Your task to perform on an android device: open app "DoorDash - Food Delivery" (install if not already installed), go to login, and select forgot password Image 0: 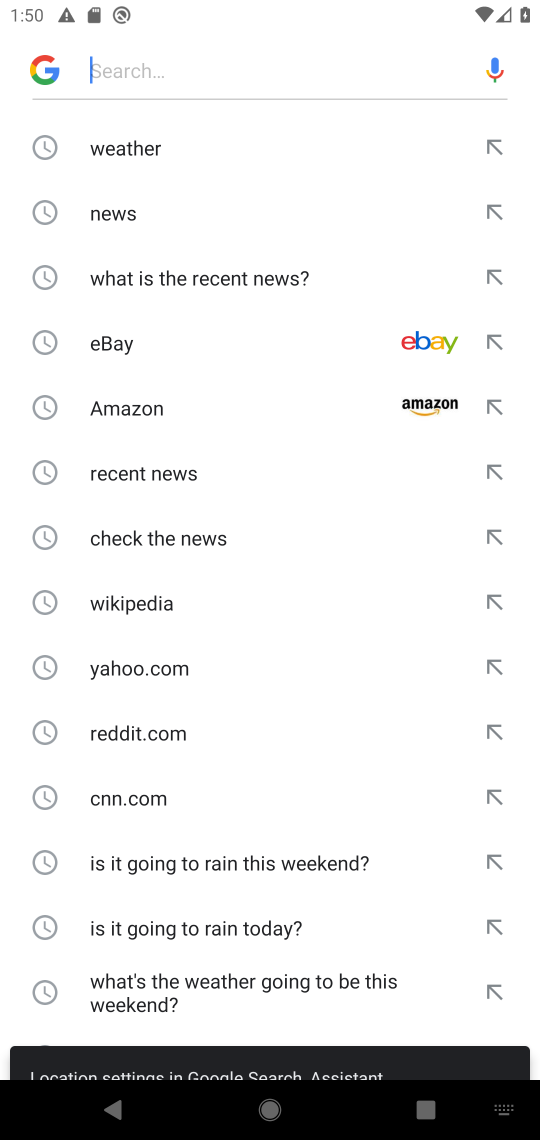
Step 0: press home button
Your task to perform on an android device: open app "DoorDash - Food Delivery" (install if not already installed), go to login, and select forgot password Image 1: 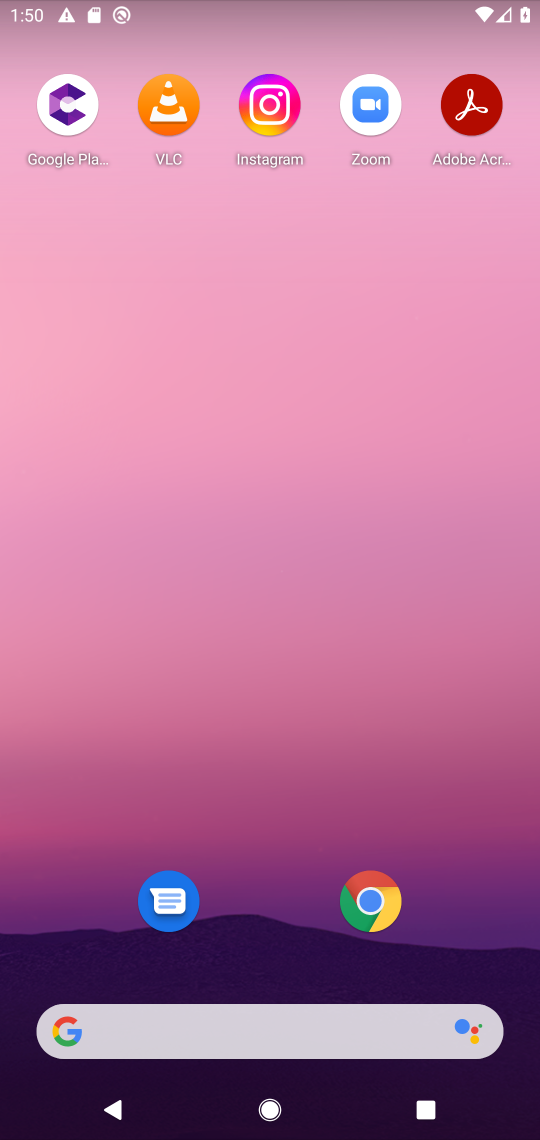
Step 1: drag from (495, 983) to (467, 116)
Your task to perform on an android device: open app "DoorDash - Food Delivery" (install if not already installed), go to login, and select forgot password Image 2: 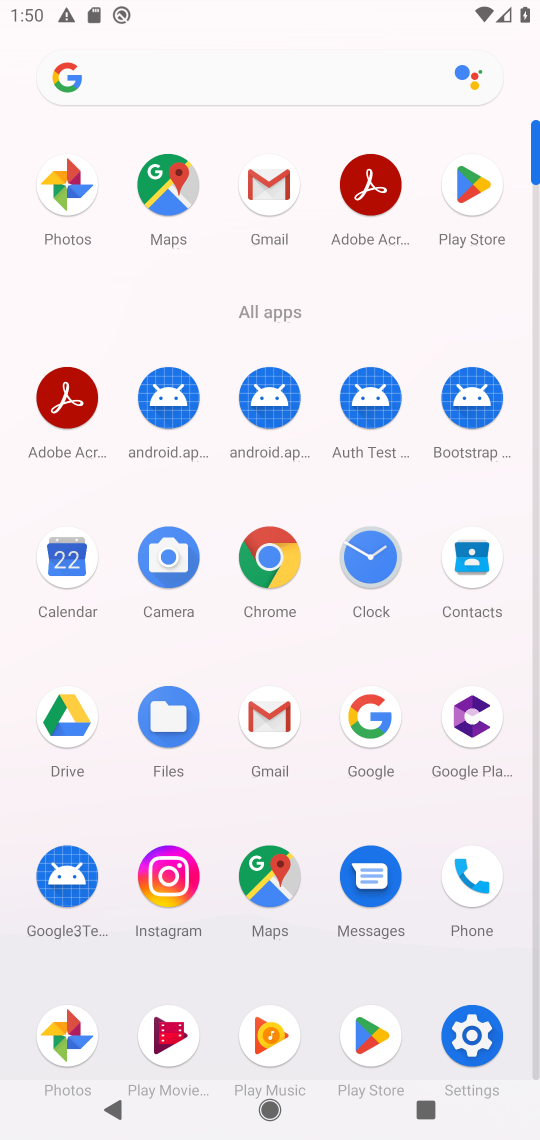
Step 2: drag from (217, 965) to (208, 524)
Your task to perform on an android device: open app "DoorDash - Food Delivery" (install if not already installed), go to login, and select forgot password Image 3: 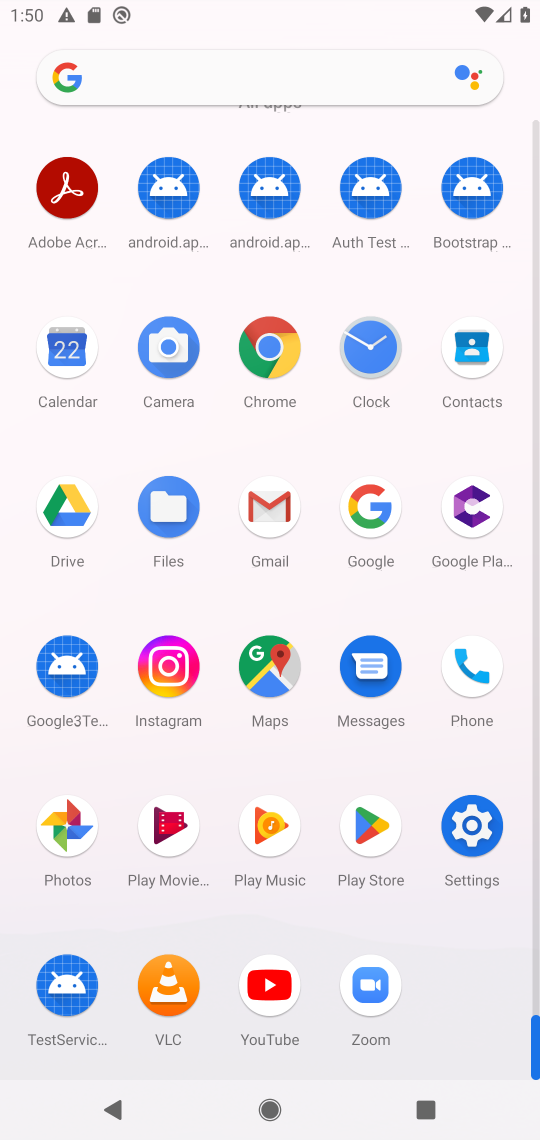
Step 3: click (368, 823)
Your task to perform on an android device: open app "DoorDash - Food Delivery" (install if not already installed), go to login, and select forgot password Image 4: 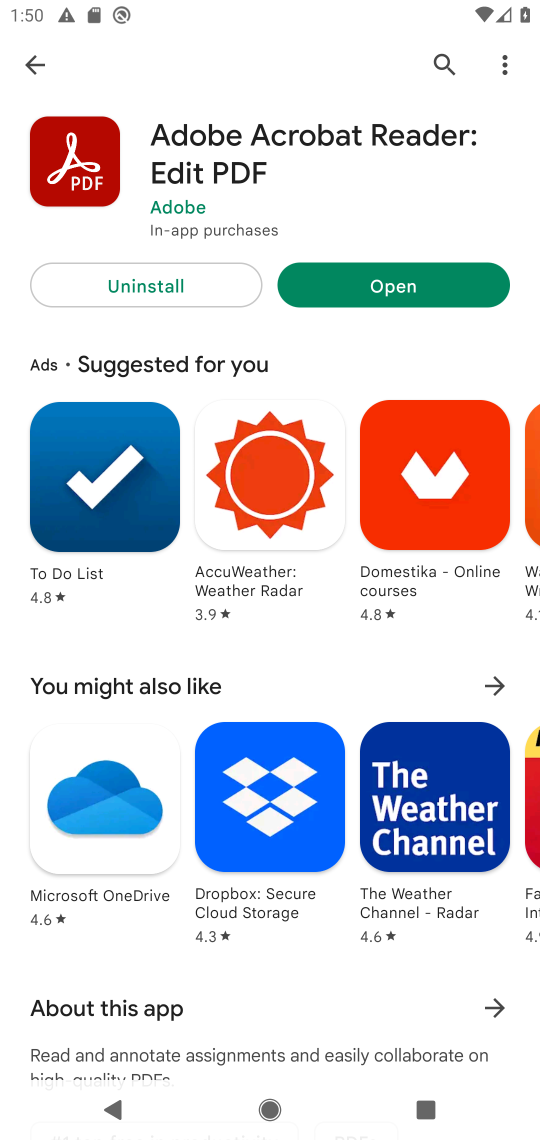
Step 4: click (437, 66)
Your task to perform on an android device: open app "DoorDash - Food Delivery" (install if not already installed), go to login, and select forgot password Image 5: 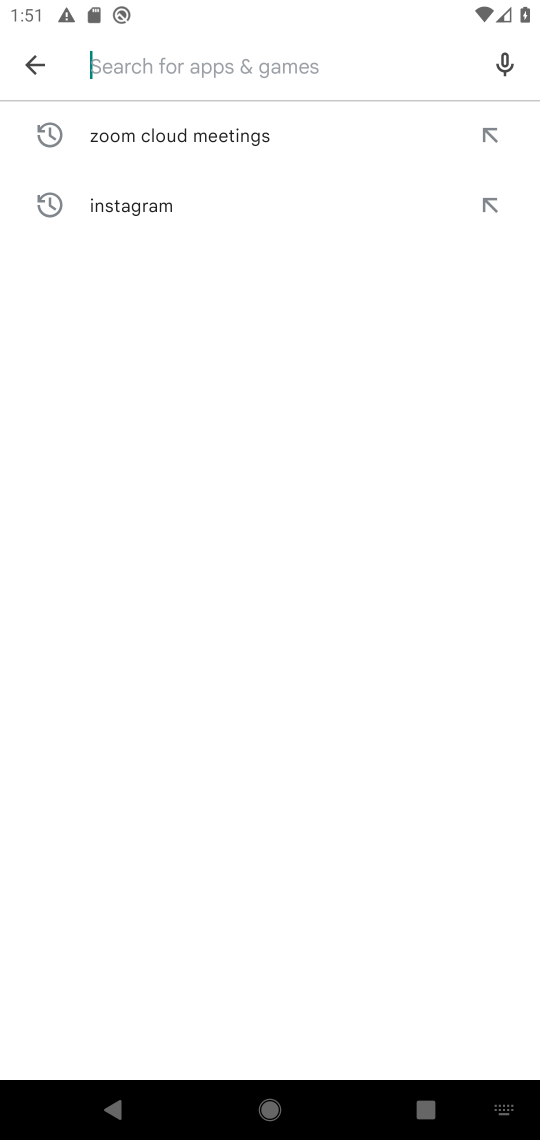
Step 5: type "DoorDash - Food Delivery"
Your task to perform on an android device: open app "DoorDash - Food Delivery" (install if not already installed), go to login, and select forgot password Image 6: 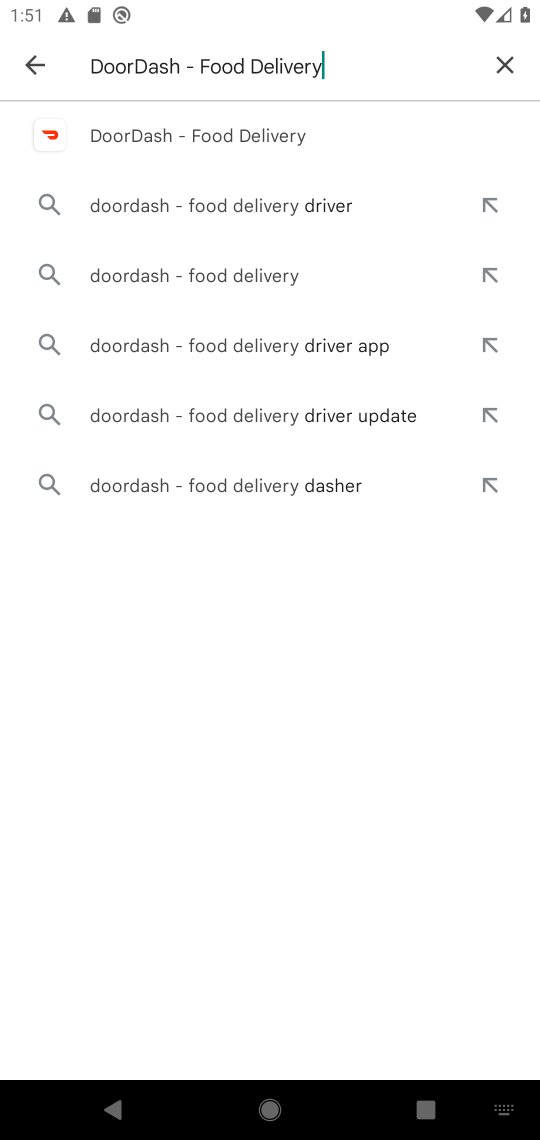
Step 6: click (199, 130)
Your task to perform on an android device: open app "DoorDash - Food Delivery" (install if not already installed), go to login, and select forgot password Image 7: 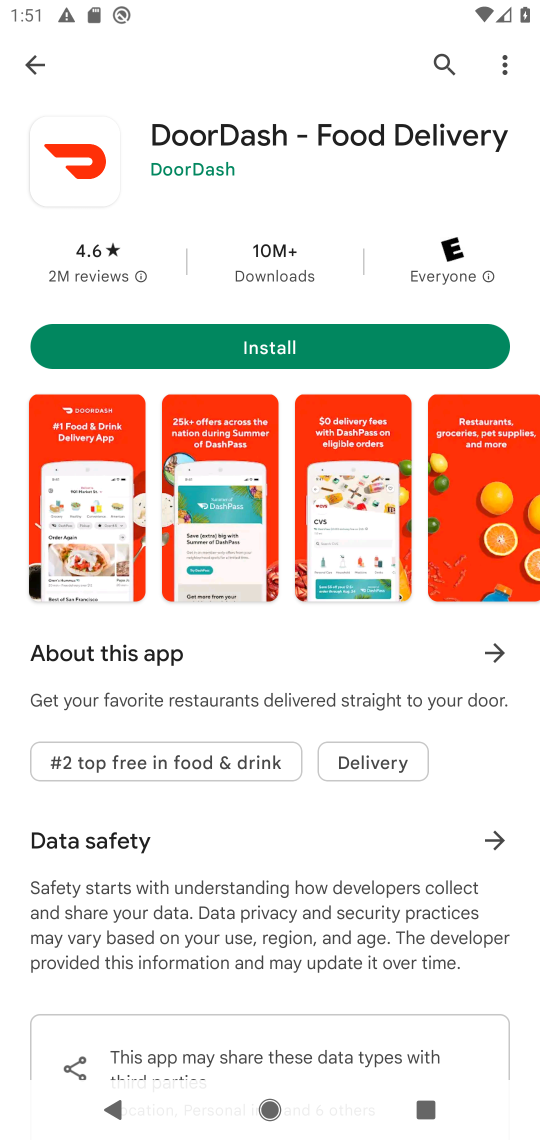
Step 7: click (276, 342)
Your task to perform on an android device: open app "DoorDash - Food Delivery" (install if not already installed), go to login, and select forgot password Image 8: 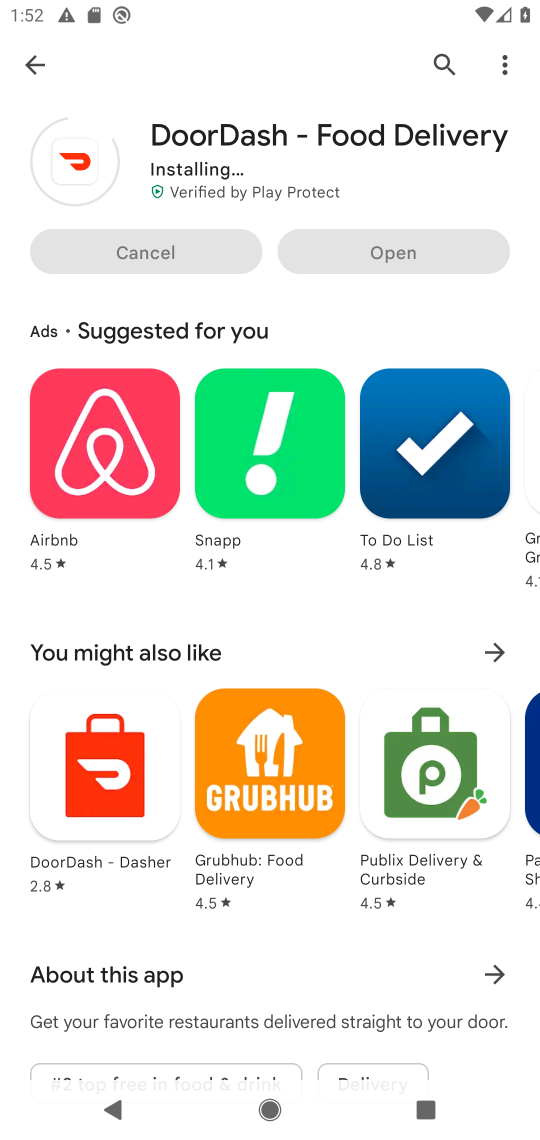
Step 8: click (264, 175)
Your task to perform on an android device: open app "DoorDash - Food Delivery" (install if not already installed), go to login, and select forgot password Image 9: 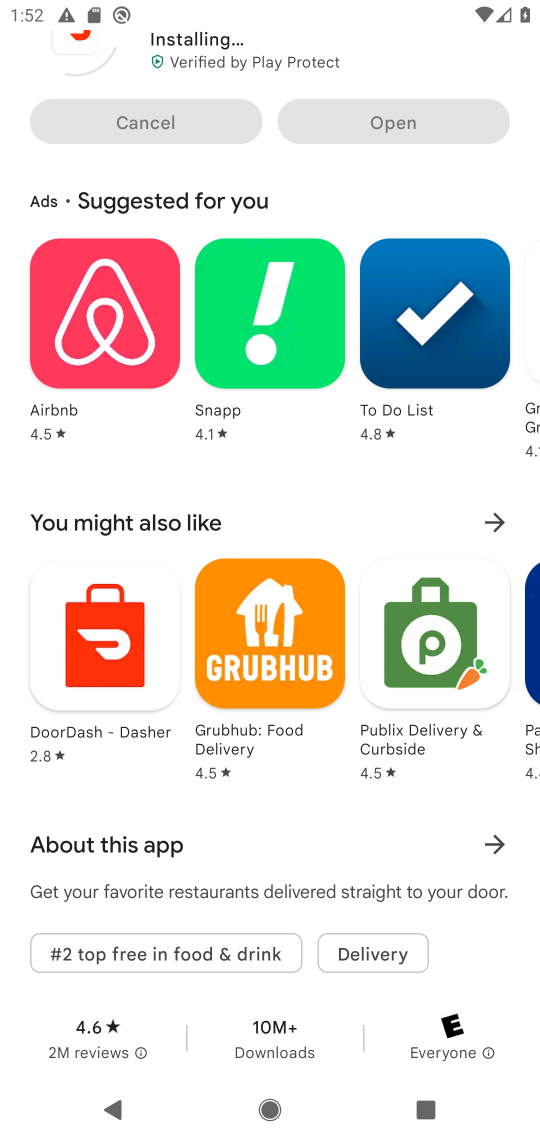
Step 9: drag from (273, 64) to (288, 206)
Your task to perform on an android device: open app "DoorDash - Food Delivery" (install if not already installed), go to login, and select forgot password Image 10: 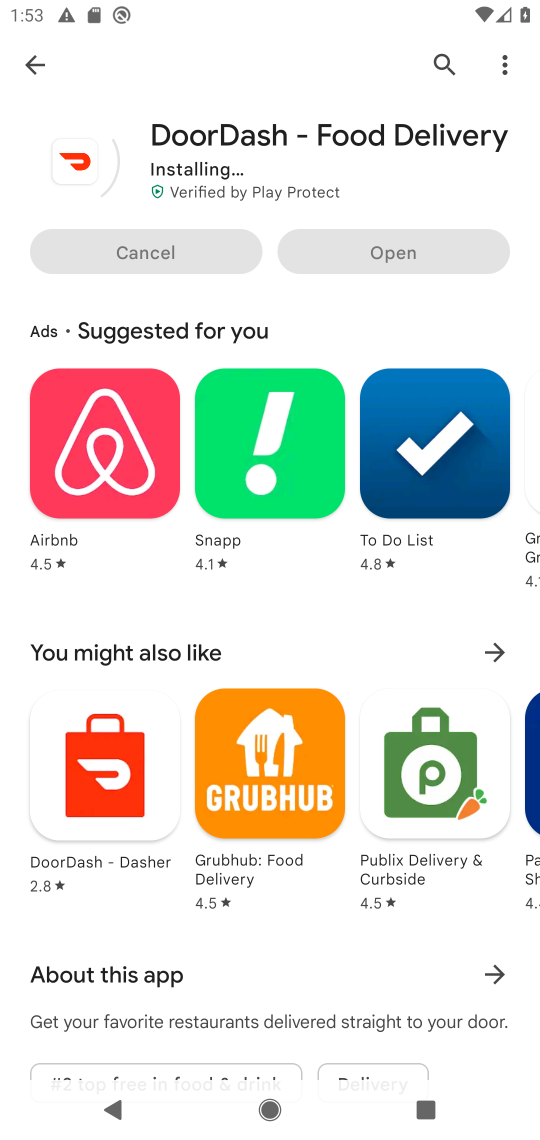
Step 10: drag from (262, 295) to (271, 414)
Your task to perform on an android device: open app "DoorDash - Food Delivery" (install if not already installed), go to login, and select forgot password Image 11: 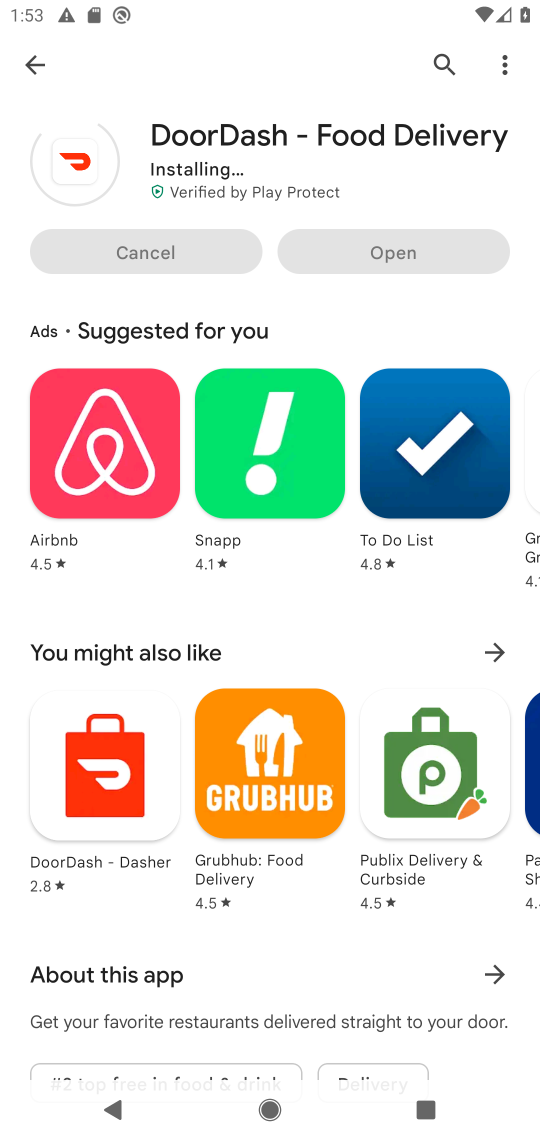
Step 11: drag from (267, 183) to (263, 269)
Your task to perform on an android device: open app "DoorDash - Food Delivery" (install if not already installed), go to login, and select forgot password Image 12: 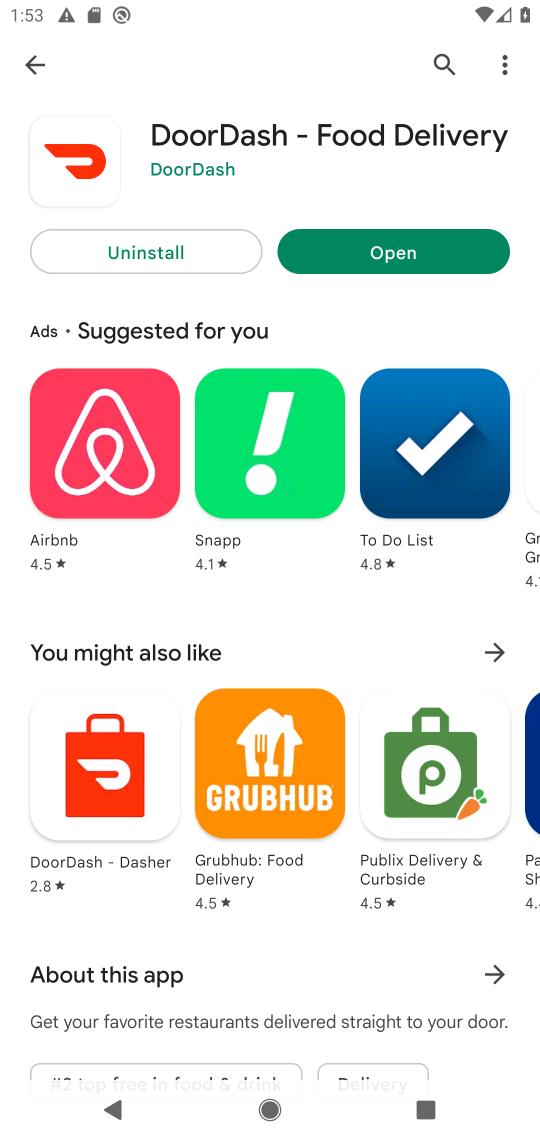
Step 12: click (397, 254)
Your task to perform on an android device: open app "DoorDash - Food Delivery" (install if not already installed), go to login, and select forgot password Image 13: 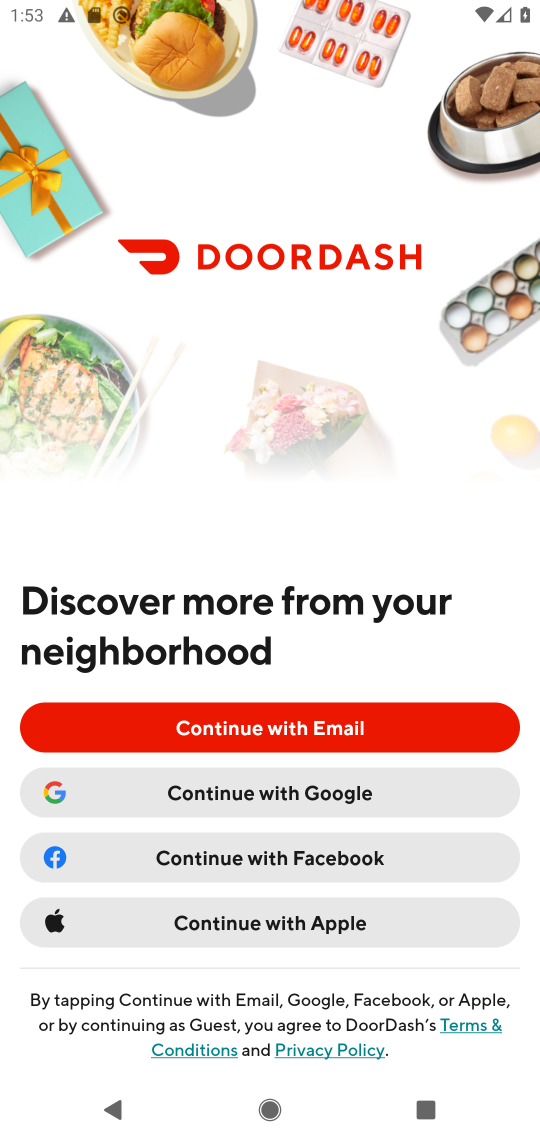
Step 13: click (241, 729)
Your task to perform on an android device: open app "DoorDash - Food Delivery" (install if not already installed), go to login, and select forgot password Image 14: 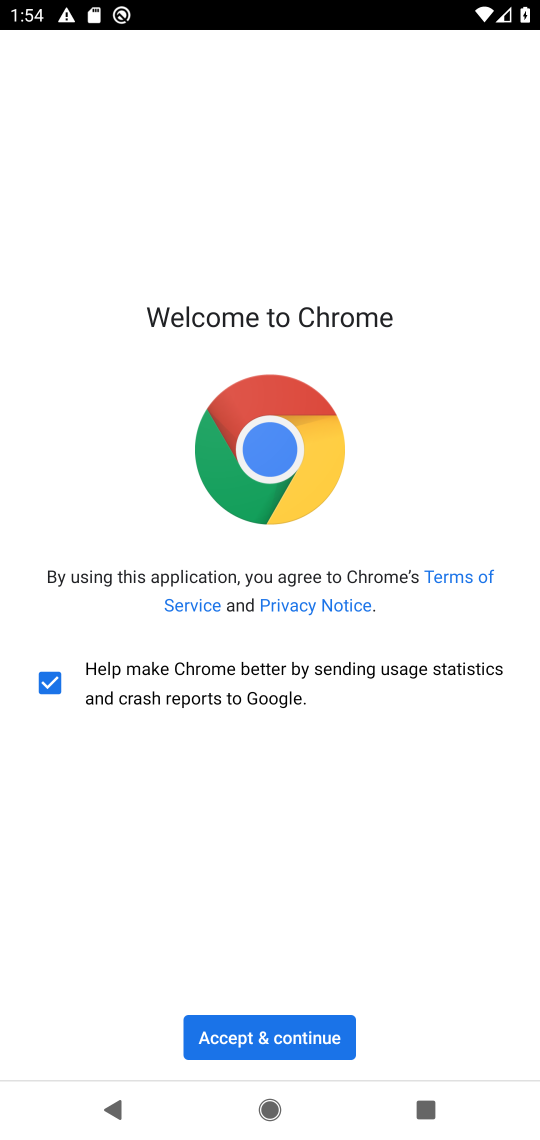
Step 14: click (272, 1043)
Your task to perform on an android device: open app "DoorDash - Food Delivery" (install if not already installed), go to login, and select forgot password Image 15: 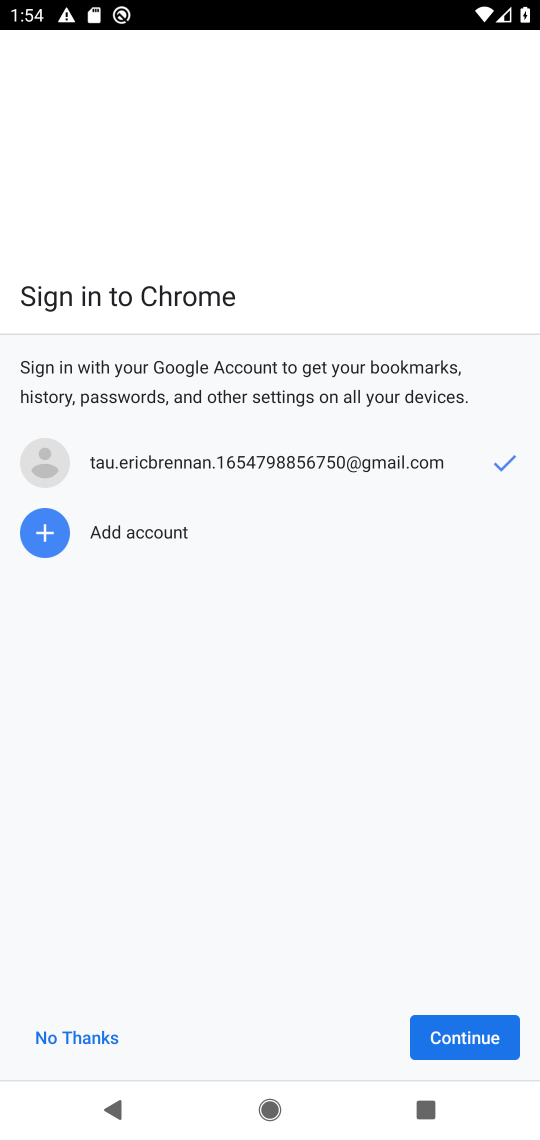
Step 15: click (458, 1051)
Your task to perform on an android device: open app "DoorDash - Food Delivery" (install if not already installed), go to login, and select forgot password Image 16: 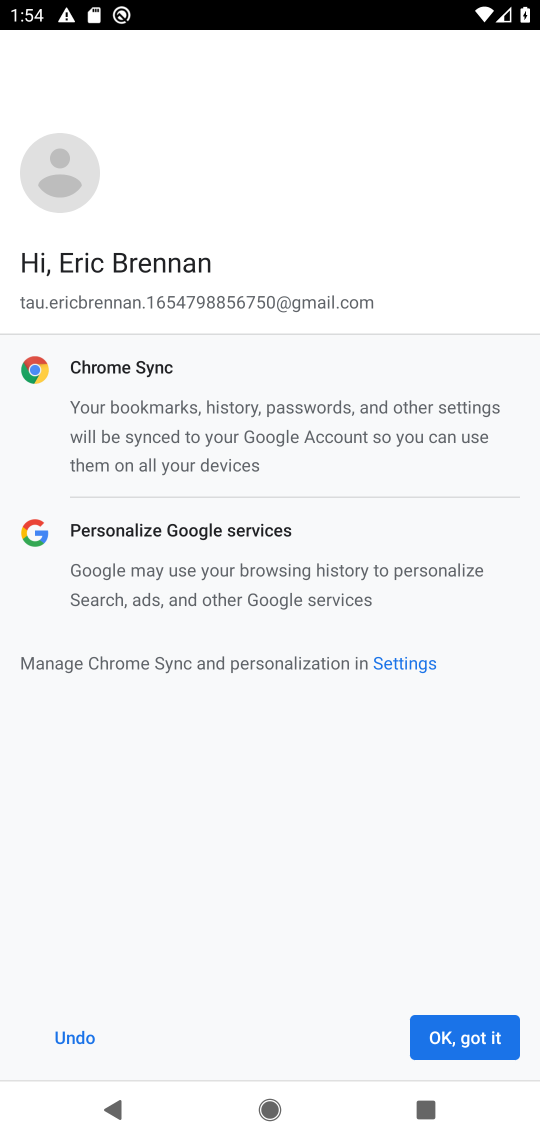
Step 16: click (469, 1047)
Your task to perform on an android device: open app "DoorDash - Food Delivery" (install if not already installed), go to login, and select forgot password Image 17: 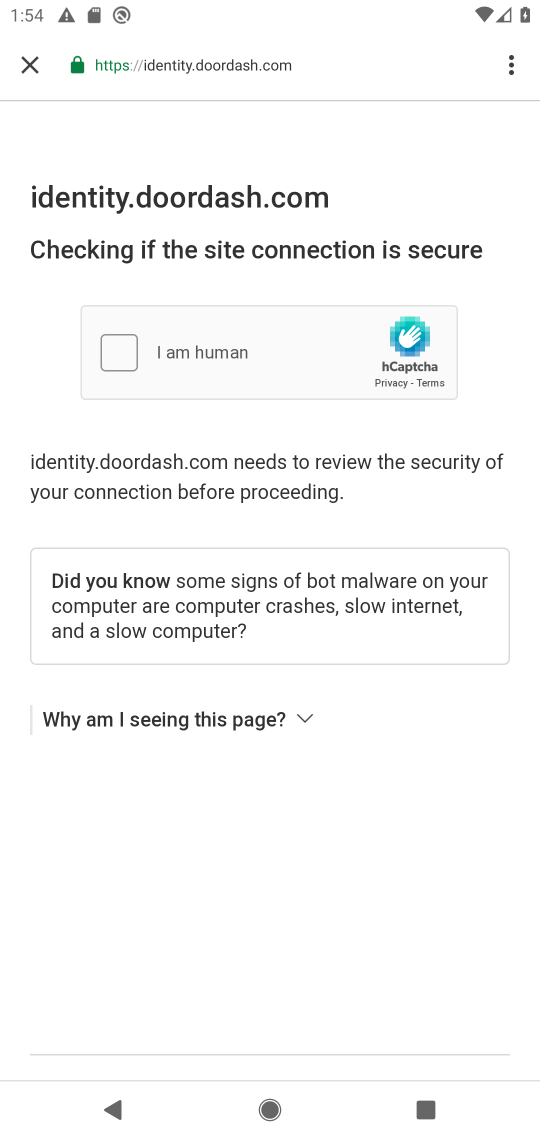
Step 17: click (120, 341)
Your task to perform on an android device: open app "DoorDash - Food Delivery" (install if not already installed), go to login, and select forgot password Image 18: 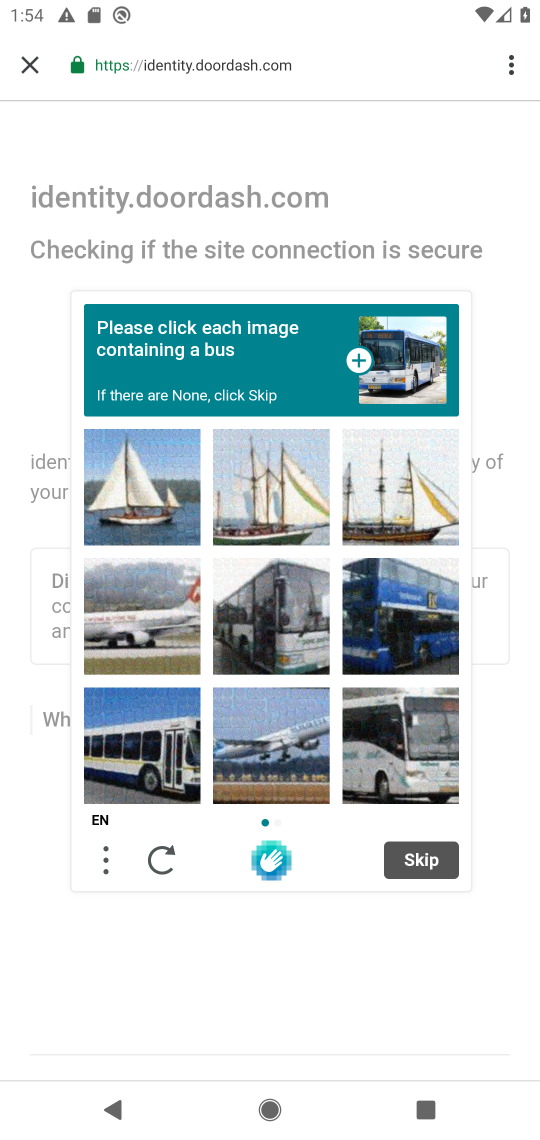
Step 18: click (277, 639)
Your task to perform on an android device: open app "DoorDash - Food Delivery" (install if not already installed), go to login, and select forgot password Image 19: 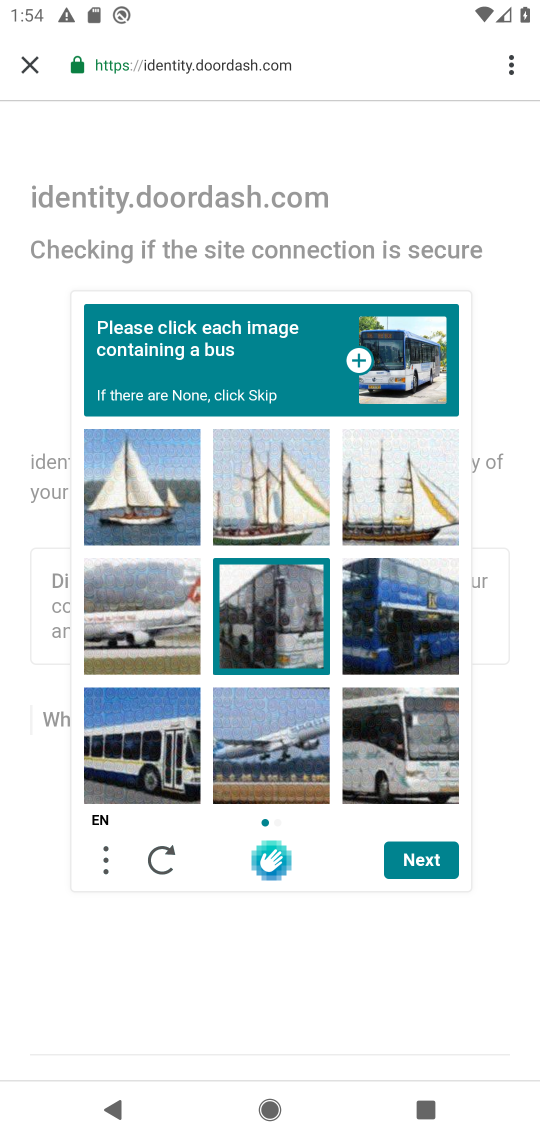
Step 19: click (396, 635)
Your task to perform on an android device: open app "DoorDash - Food Delivery" (install if not already installed), go to login, and select forgot password Image 20: 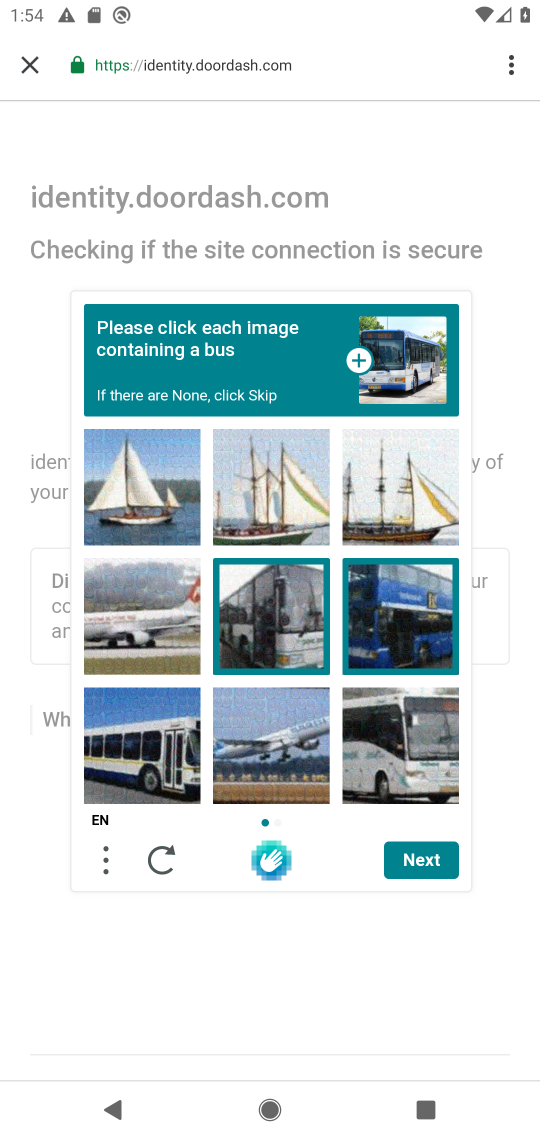
Step 20: click (142, 765)
Your task to perform on an android device: open app "DoorDash - Food Delivery" (install if not already installed), go to login, and select forgot password Image 21: 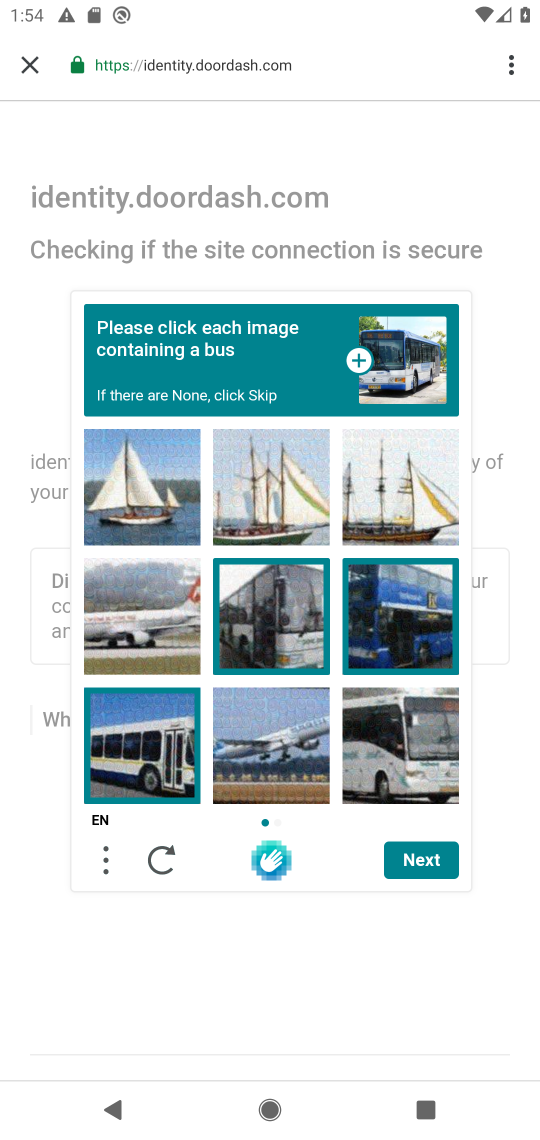
Step 21: click (399, 782)
Your task to perform on an android device: open app "DoorDash - Food Delivery" (install if not already installed), go to login, and select forgot password Image 22: 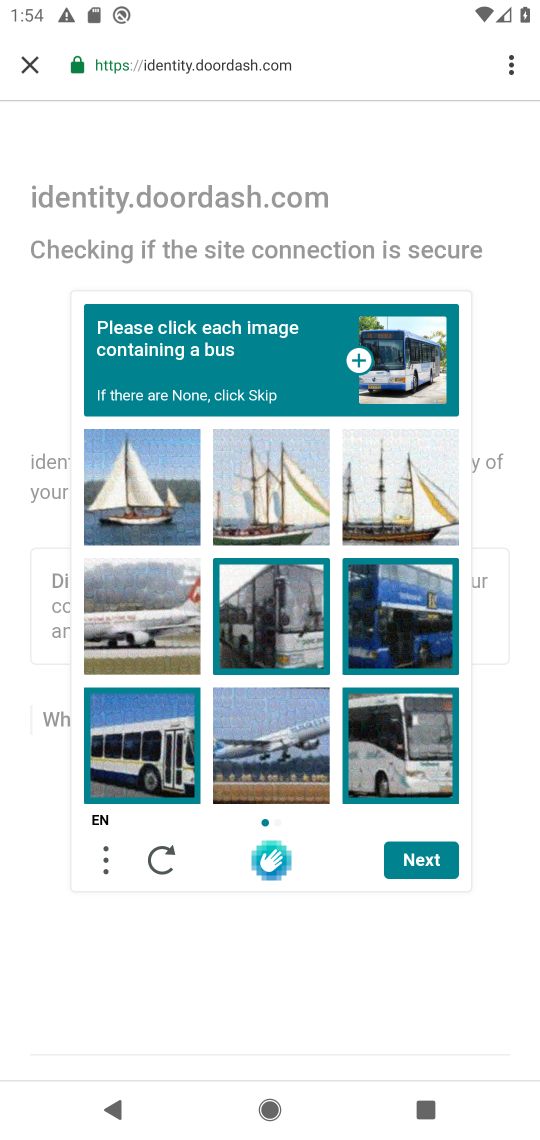
Step 22: click (418, 866)
Your task to perform on an android device: open app "DoorDash - Food Delivery" (install if not already installed), go to login, and select forgot password Image 23: 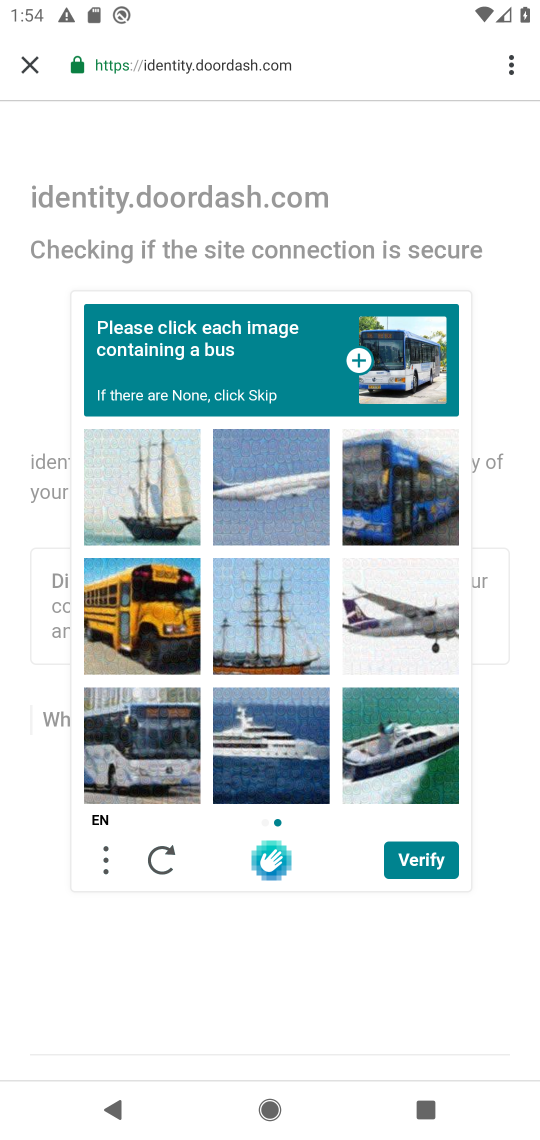
Step 23: click (125, 758)
Your task to perform on an android device: open app "DoorDash - Food Delivery" (install if not already installed), go to login, and select forgot password Image 24: 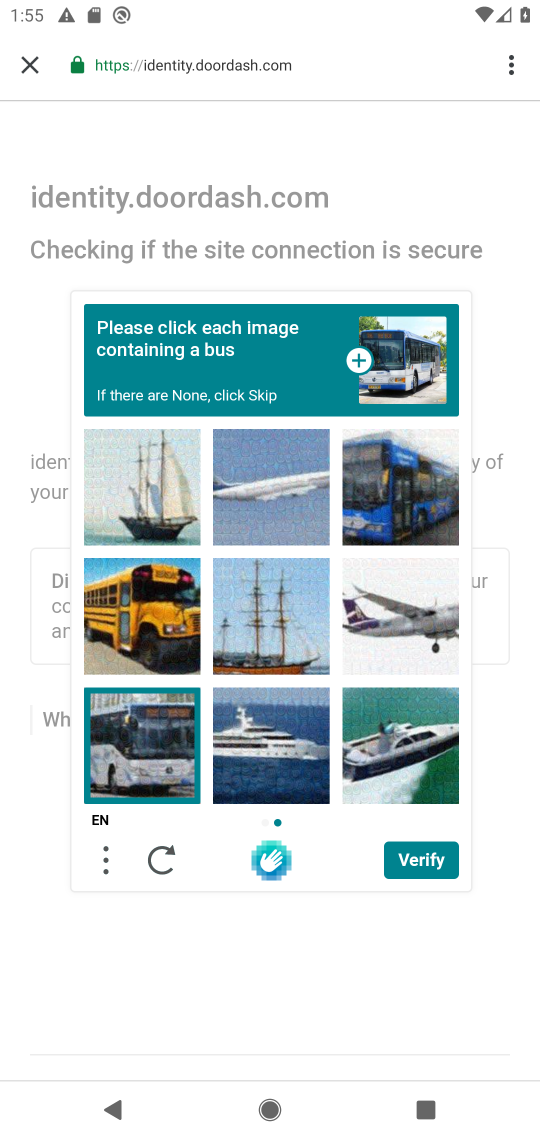
Step 24: click (390, 475)
Your task to perform on an android device: open app "DoorDash - Food Delivery" (install if not already installed), go to login, and select forgot password Image 25: 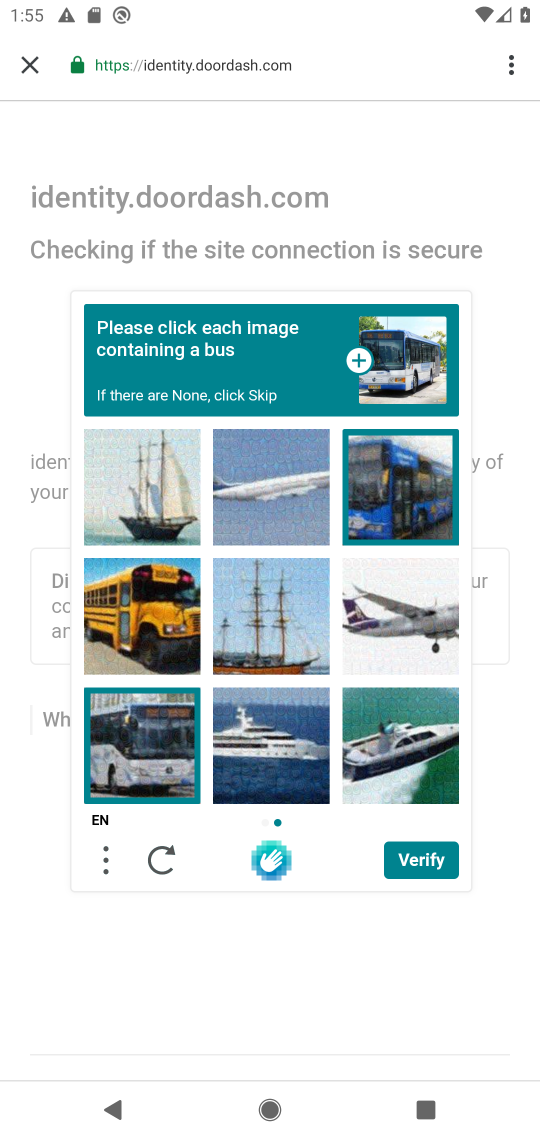
Step 25: click (420, 855)
Your task to perform on an android device: open app "DoorDash - Food Delivery" (install if not already installed), go to login, and select forgot password Image 26: 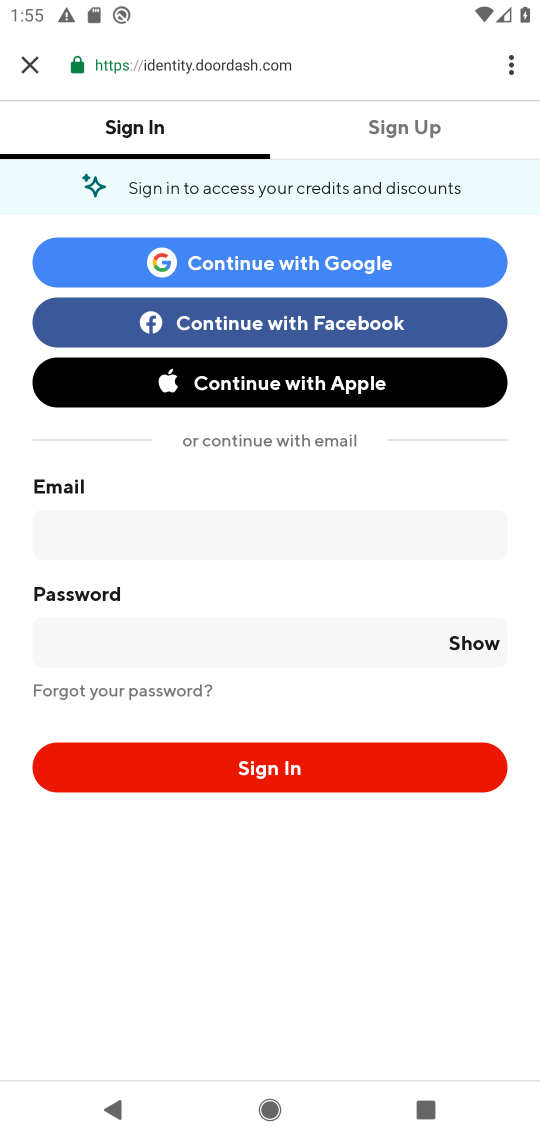
Step 26: click (156, 687)
Your task to perform on an android device: open app "DoorDash - Food Delivery" (install if not already installed), go to login, and select forgot password Image 27: 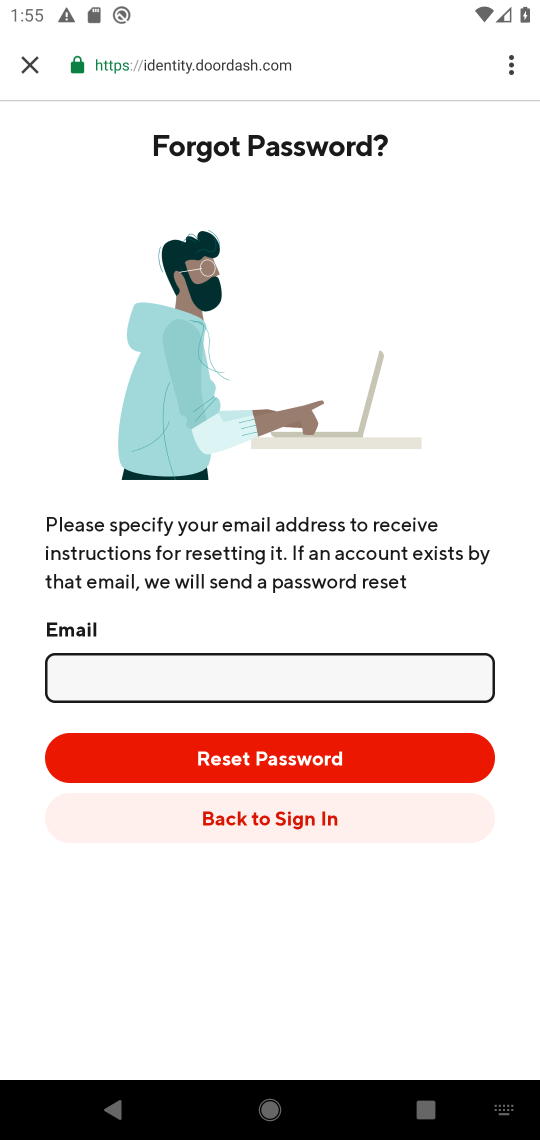
Step 27: task complete